Your task to perform on an android device: Show me the alarms in the clock app Image 0: 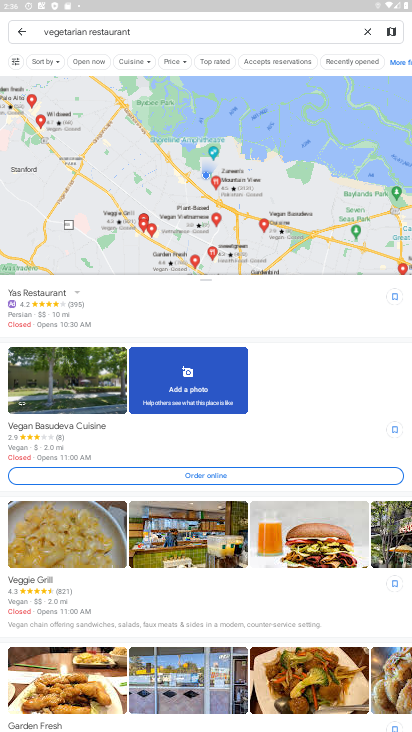
Step 0: press home button
Your task to perform on an android device: Show me the alarms in the clock app Image 1: 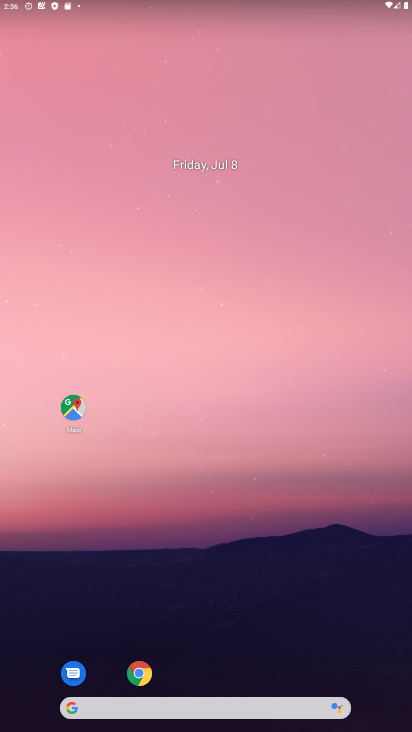
Step 1: drag from (205, 694) to (214, 324)
Your task to perform on an android device: Show me the alarms in the clock app Image 2: 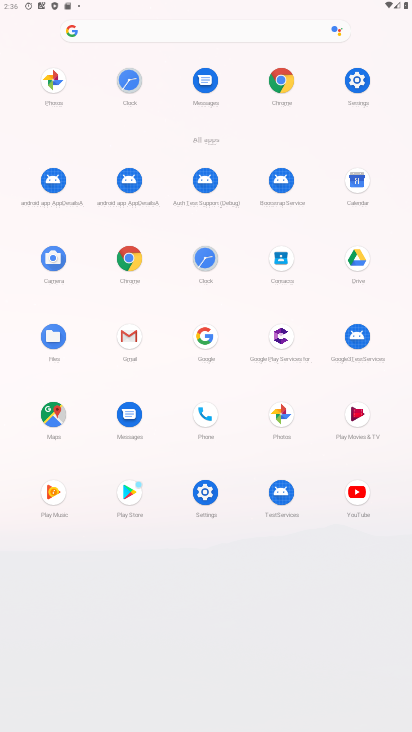
Step 2: click (201, 257)
Your task to perform on an android device: Show me the alarms in the clock app Image 3: 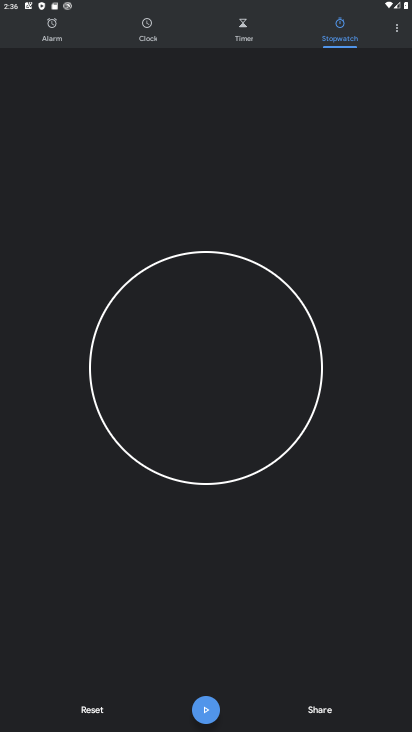
Step 3: click (41, 30)
Your task to perform on an android device: Show me the alarms in the clock app Image 4: 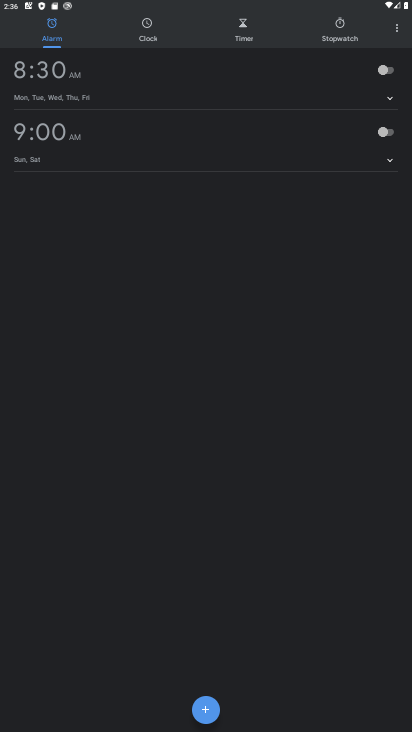
Step 4: task complete